Your task to perform on an android device: Go to wifi settings Image 0: 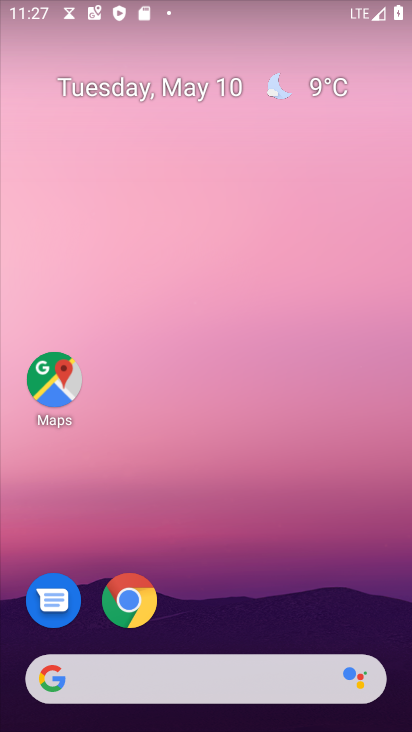
Step 0: drag from (252, 588) to (226, 104)
Your task to perform on an android device: Go to wifi settings Image 1: 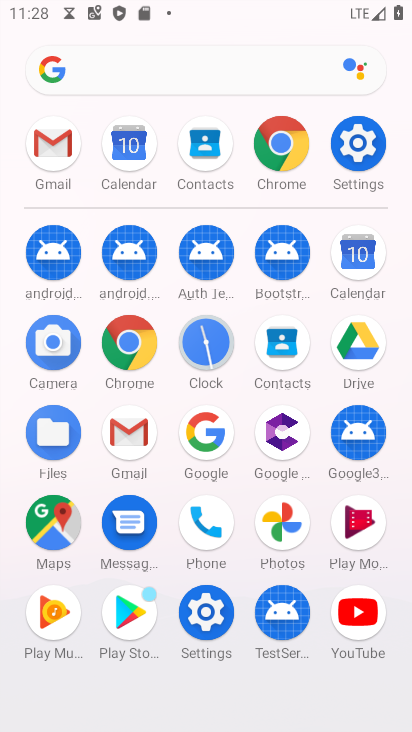
Step 1: click (358, 137)
Your task to perform on an android device: Go to wifi settings Image 2: 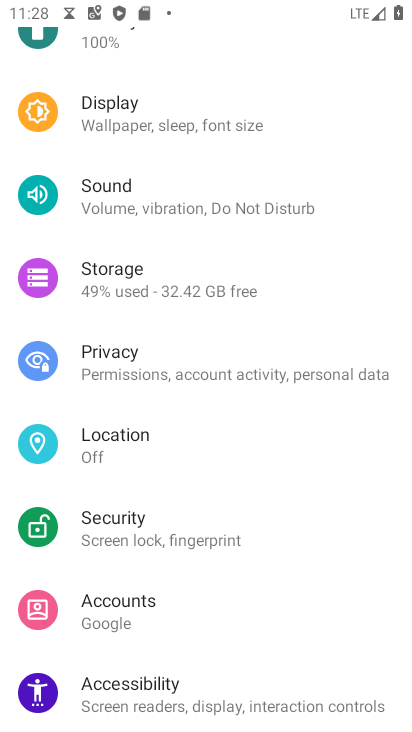
Step 2: drag from (209, 217) to (232, 699)
Your task to perform on an android device: Go to wifi settings Image 3: 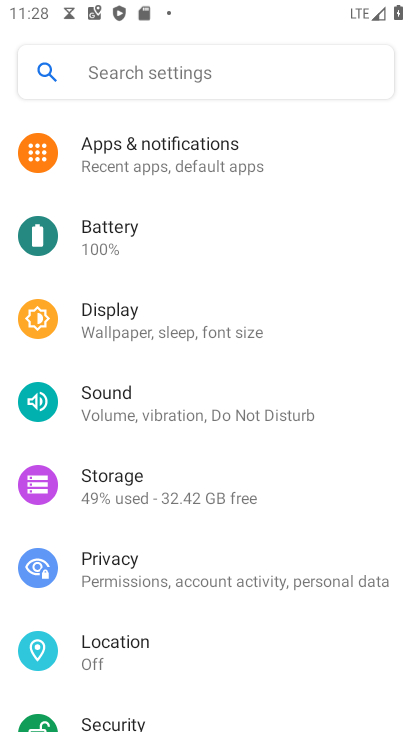
Step 3: drag from (218, 232) to (228, 633)
Your task to perform on an android device: Go to wifi settings Image 4: 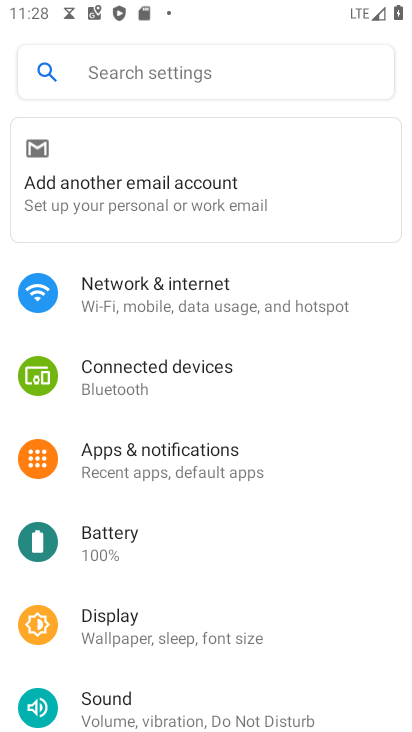
Step 4: click (180, 288)
Your task to perform on an android device: Go to wifi settings Image 5: 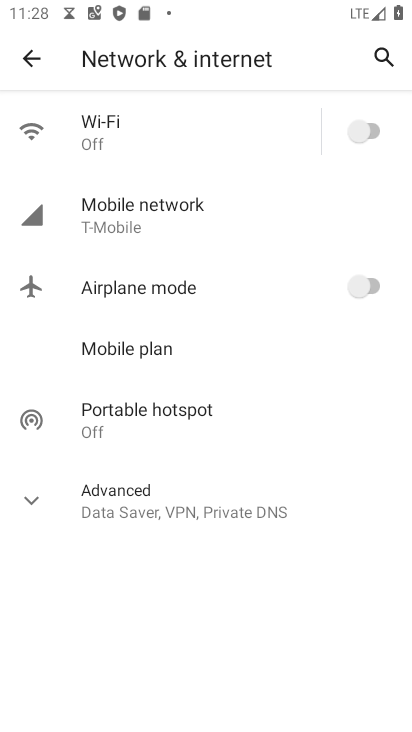
Step 5: task complete